Your task to perform on an android device: move a message to another label in the gmail app Image 0: 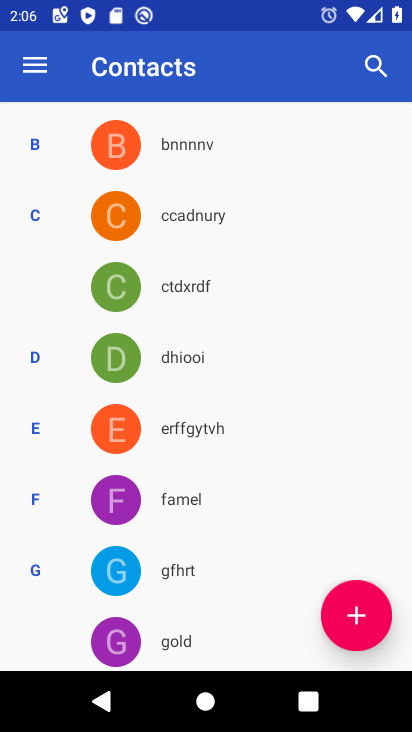
Step 0: press home button
Your task to perform on an android device: move a message to another label in the gmail app Image 1: 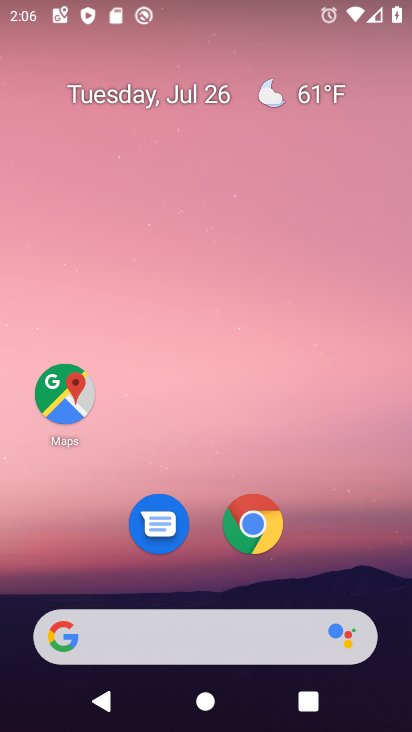
Step 1: drag from (230, 592) to (279, 175)
Your task to perform on an android device: move a message to another label in the gmail app Image 2: 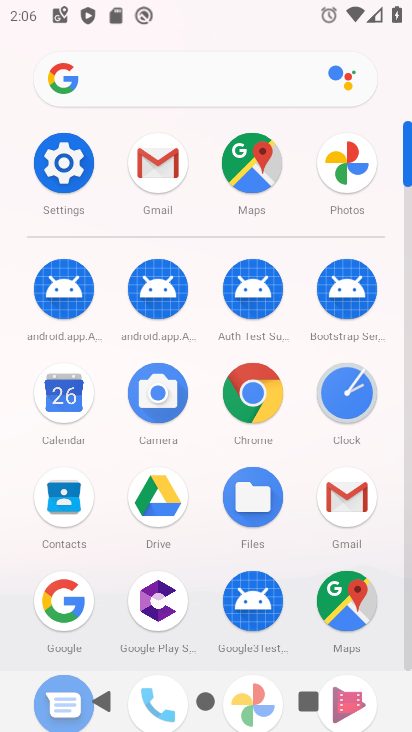
Step 2: click (160, 178)
Your task to perform on an android device: move a message to another label in the gmail app Image 3: 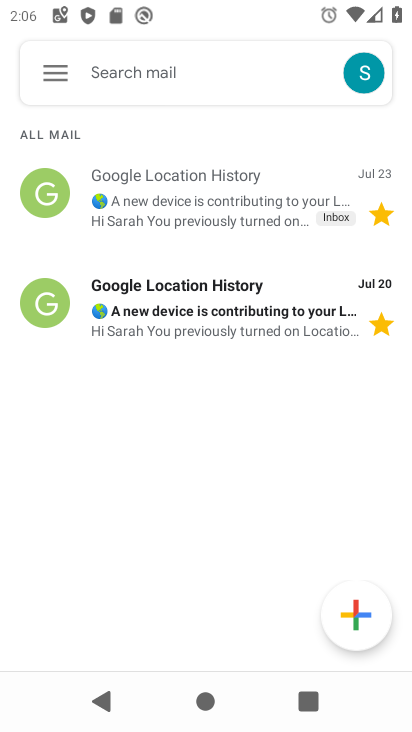
Step 3: click (182, 208)
Your task to perform on an android device: move a message to another label in the gmail app Image 4: 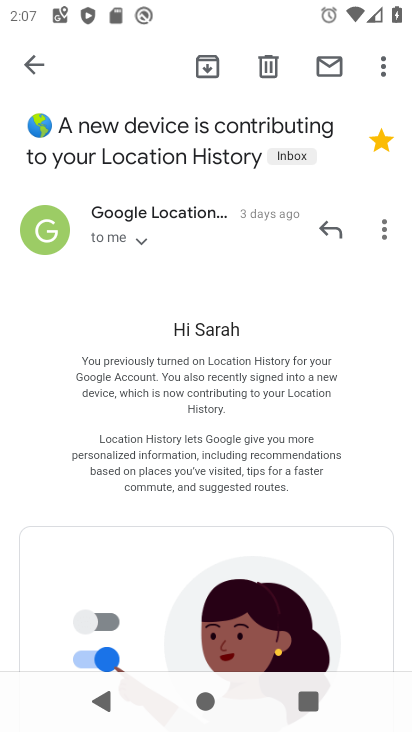
Step 4: click (296, 157)
Your task to perform on an android device: move a message to another label in the gmail app Image 5: 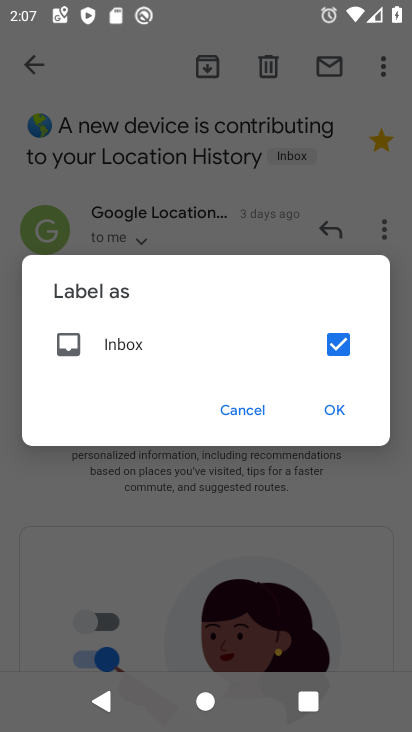
Step 5: click (338, 414)
Your task to perform on an android device: move a message to another label in the gmail app Image 6: 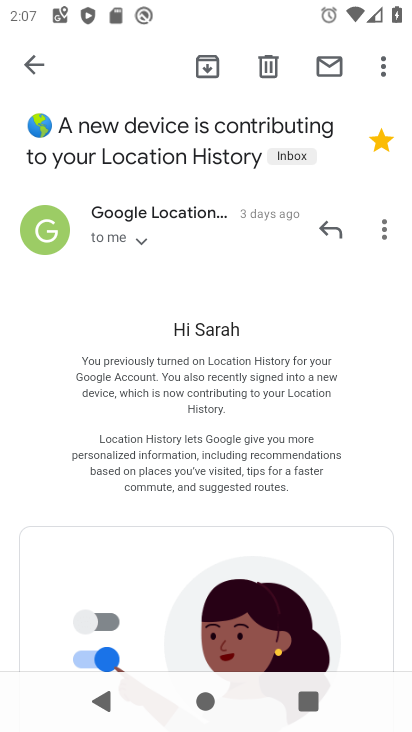
Step 6: task complete